Your task to perform on an android device: What's a good restaurant in San Diego? Image 0: 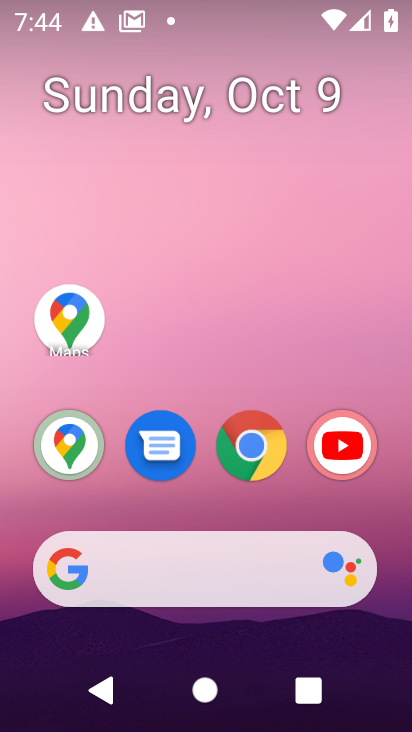
Step 0: drag from (192, 457) to (211, 137)
Your task to perform on an android device: What's a good restaurant in San Diego? Image 1: 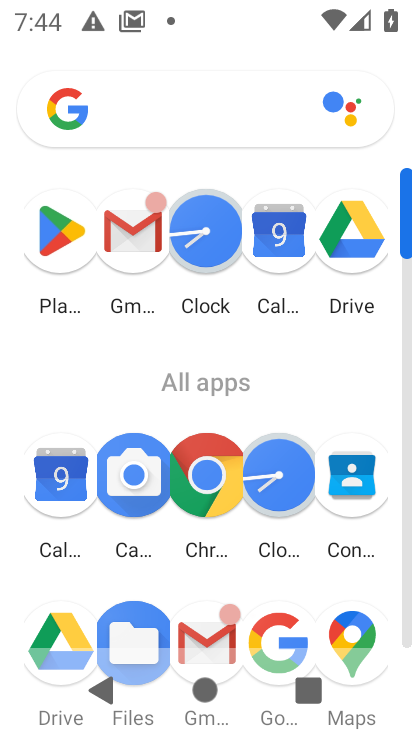
Step 1: click (273, 631)
Your task to perform on an android device: What's a good restaurant in San Diego? Image 2: 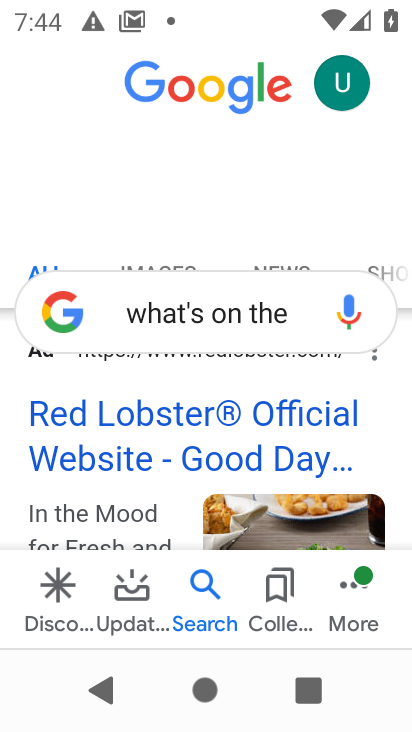
Step 2: click (215, 312)
Your task to perform on an android device: What's a good restaurant in San Diego? Image 3: 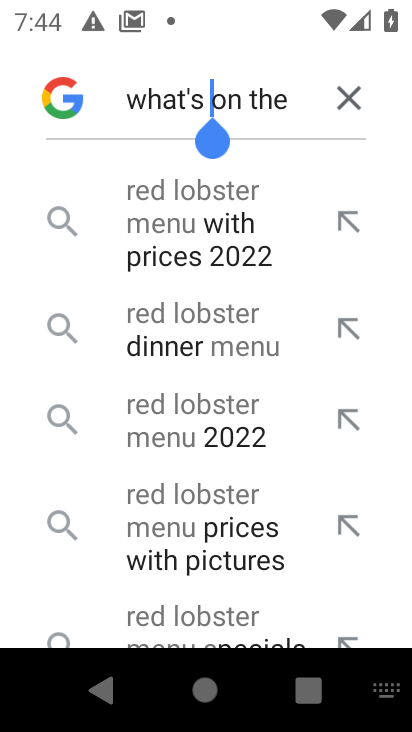
Step 3: click (342, 100)
Your task to perform on an android device: What's a good restaurant in San Diego? Image 4: 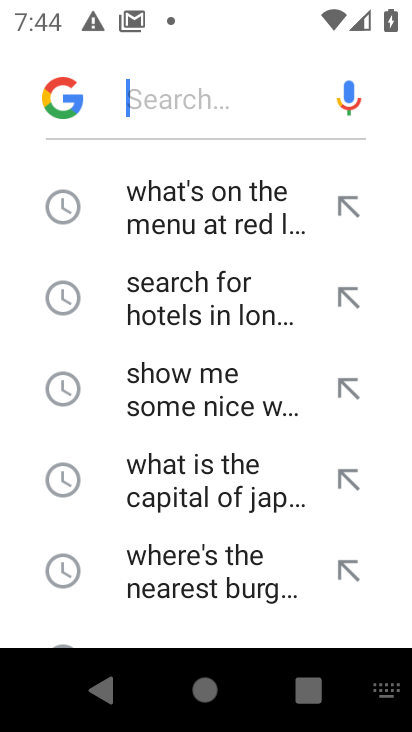
Step 4: type "What's a good restaurant in San Diego?"
Your task to perform on an android device: What's a good restaurant in San Diego? Image 5: 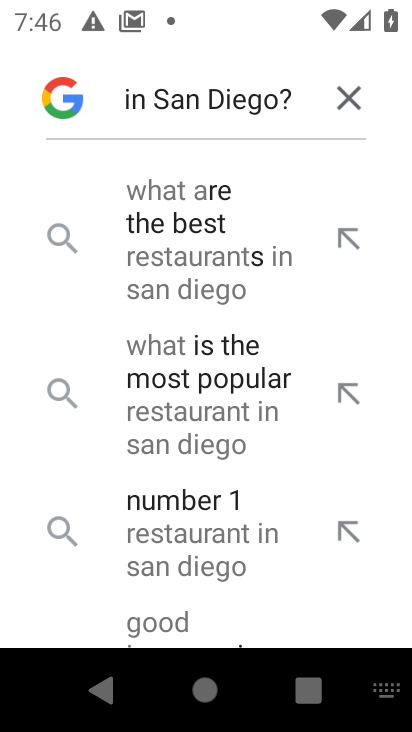
Step 5: click (198, 243)
Your task to perform on an android device: What's a good restaurant in San Diego? Image 6: 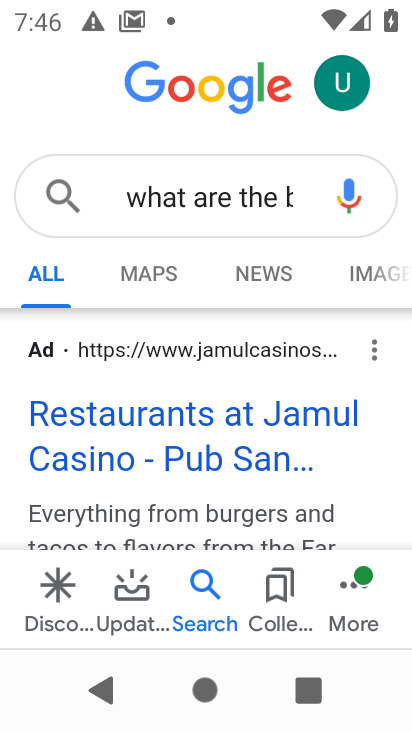
Step 6: click (213, 456)
Your task to perform on an android device: What's a good restaurant in San Diego? Image 7: 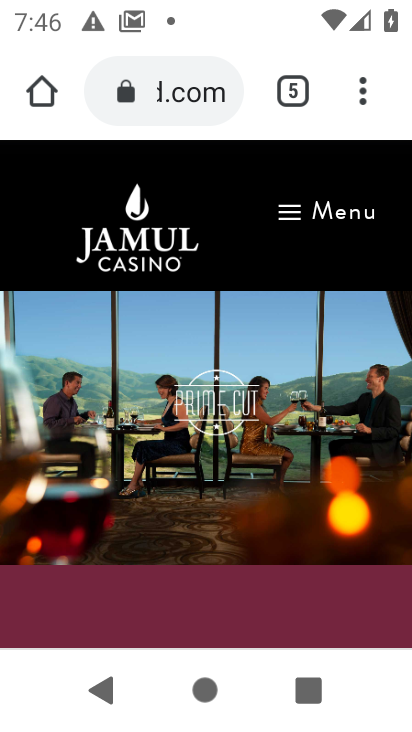
Step 7: task complete